Your task to perform on an android device: turn on wifi Image 0: 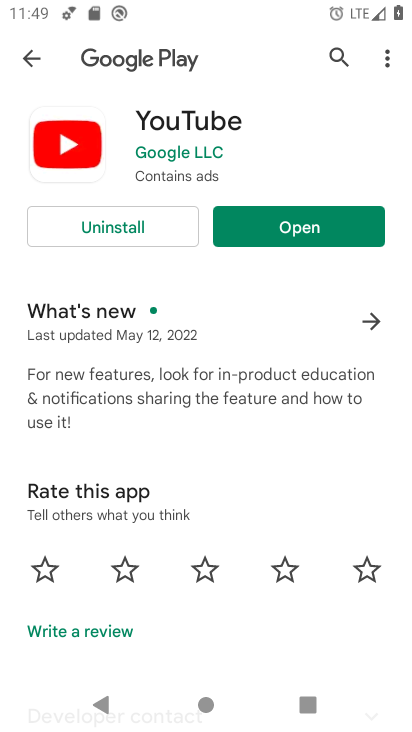
Step 0: press home button
Your task to perform on an android device: turn on wifi Image 1: 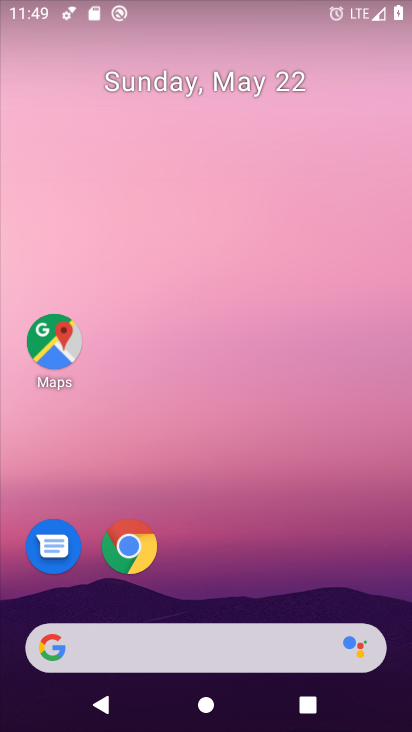
Step 1: drag from (220, 606) to (289, 215)
Your task to perform on an android device: turn on wifi Image 2: 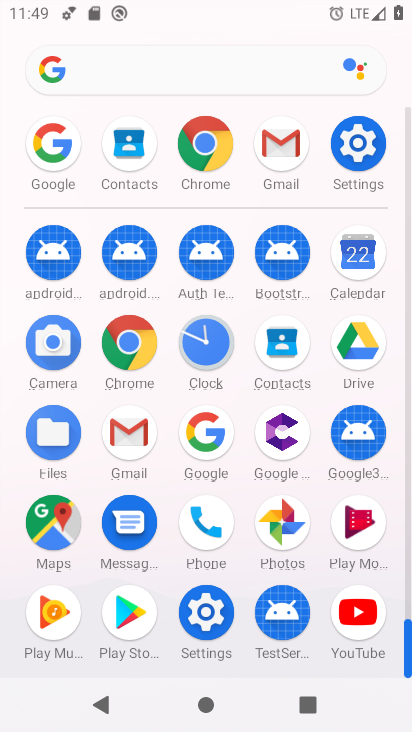
Step 2: click (351, 165)
Your task to perform on an android device: turn on wifi Image 3: 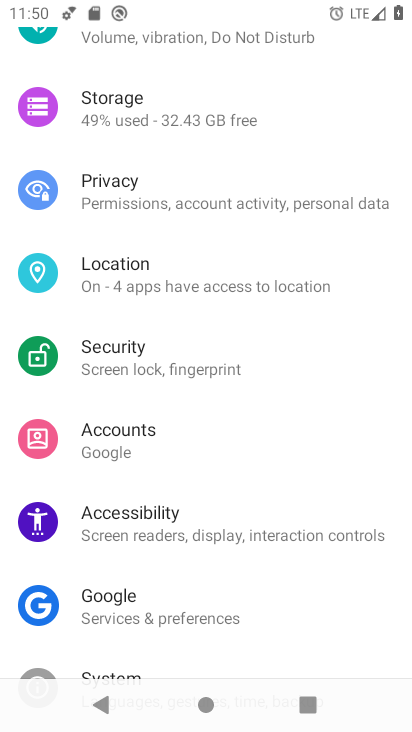
Step 3: drag from (290, 162) to (283, 375)
Your task to perform on an android device: turn on wifi Image 4: 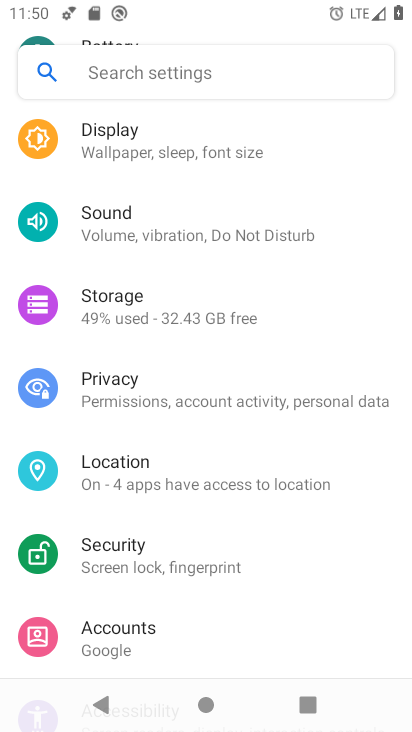
Step 4: drag from (304, 157) to (323, 425)
Your task to perform on an android device: turn on wifi Image 5: 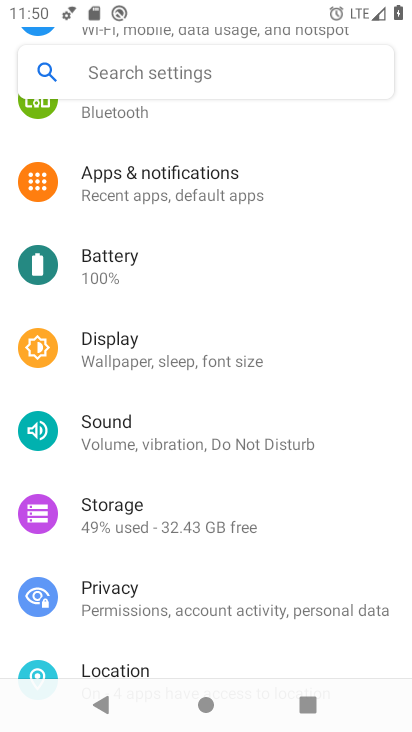
Step 5: drag from (317, 170) to (361, 680)
Your task to perform on an android device: turn on wifi Image 6: 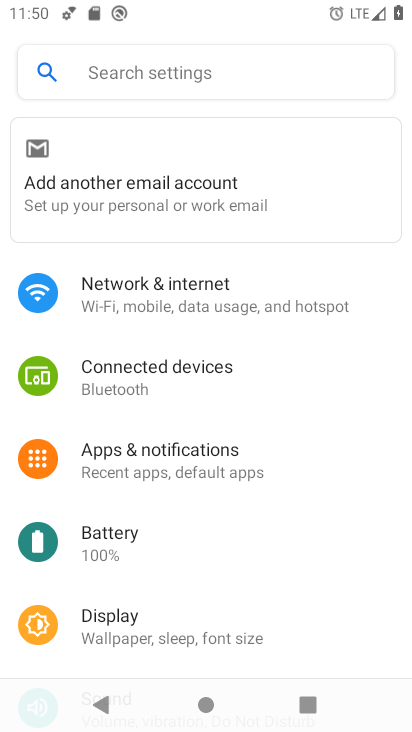
Step 6: click (252, 310)
Your task to perform on an android device: turn on wifi Image 7: 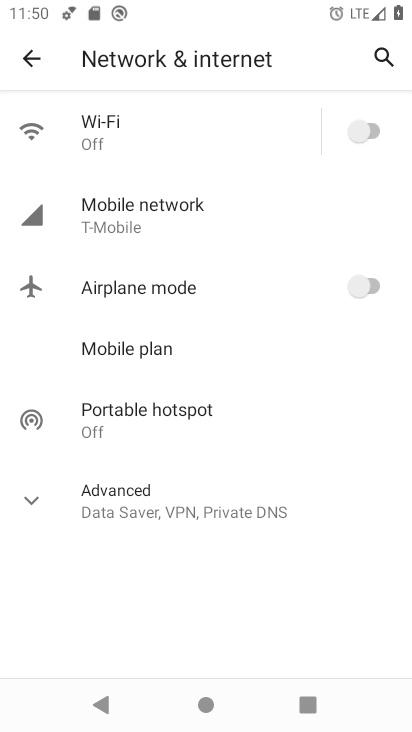
Step 7: click (237, 135)
Your task to perform on an android device: turn on wifi Image 8: 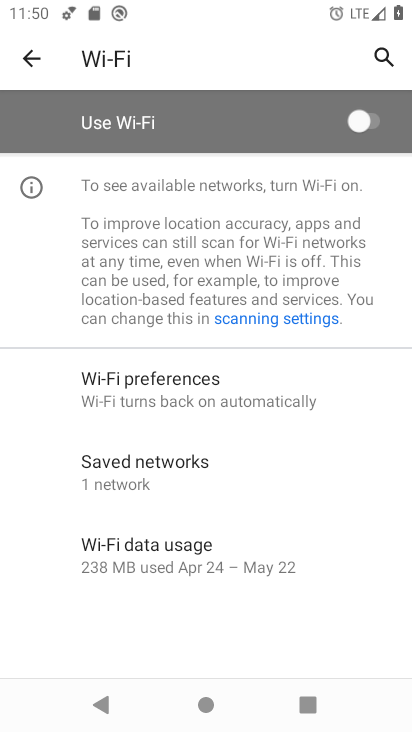
Step 8: click (371, 121)
Your task to perform on an android device: turn on wifi Image 9: 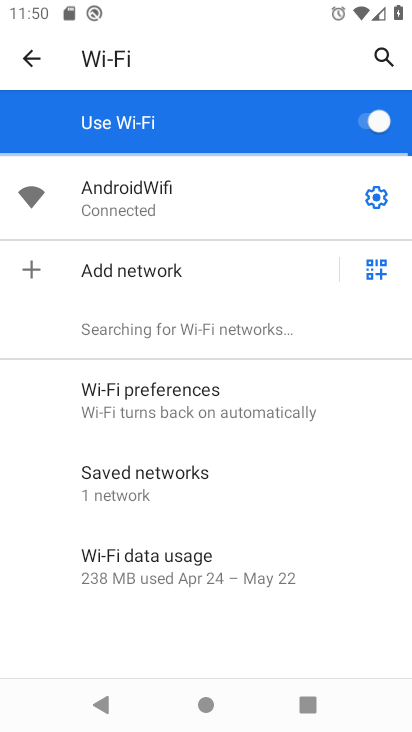
Step 9: task complete